Your task to perform on an android device: manage bookmarks in the chrome app Image 0: 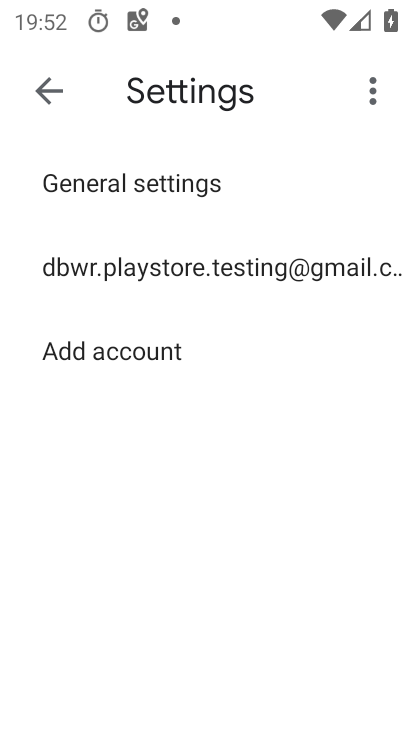
Step 0: press home button
Your task to perform on an android device: manage bookmarks in the chrome app Image 1: 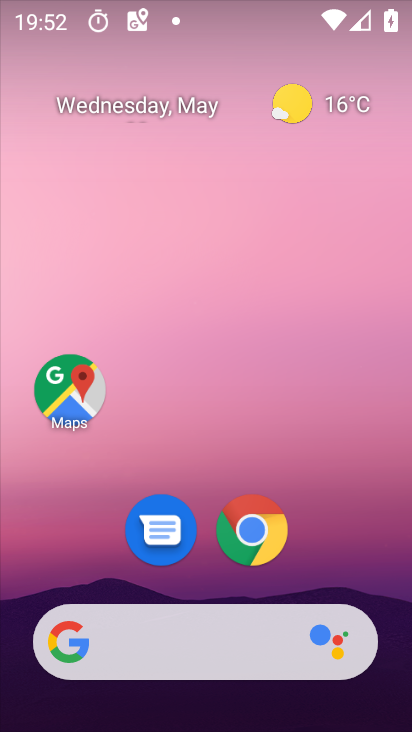
Step 1: click (243, 521)
Your task to perform on an android device: manage bookmarks in the chrome app Image 2: 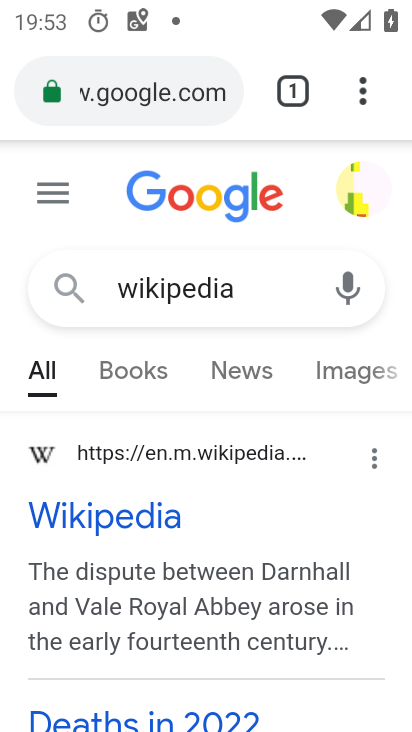
Step 2: click (361, 78)
Your task to perform on an android device: manage bookmarks in the chrome app Image 3: 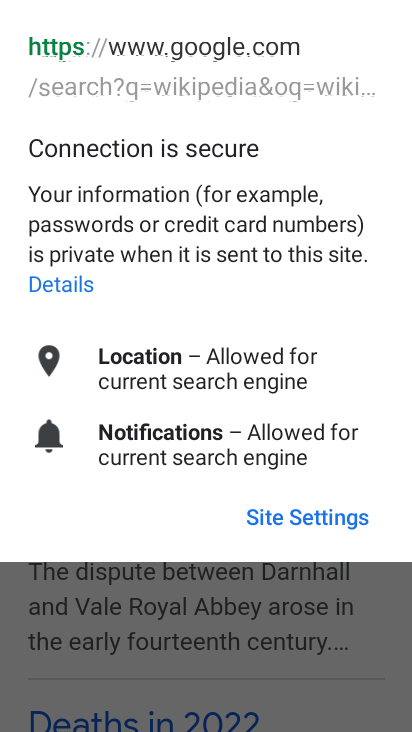
Step 3: click (18, 615)
Your task to perform on an android device: manage bookmarks in the chrome app Image 4: 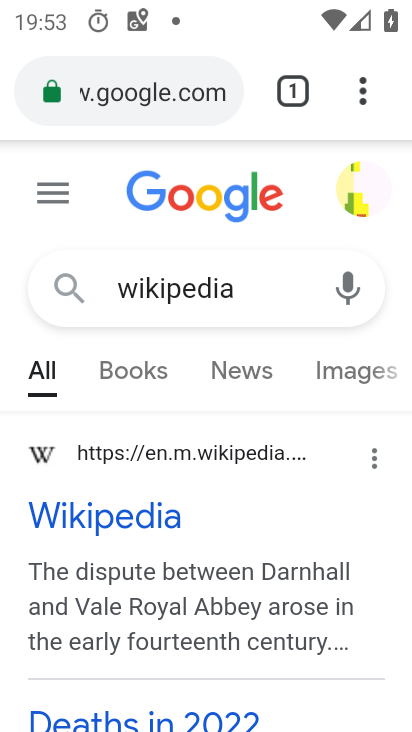
Step 4: click (366, 100)
Your task to perform on an android device: manage bookmarks in the chrome app Image 5: 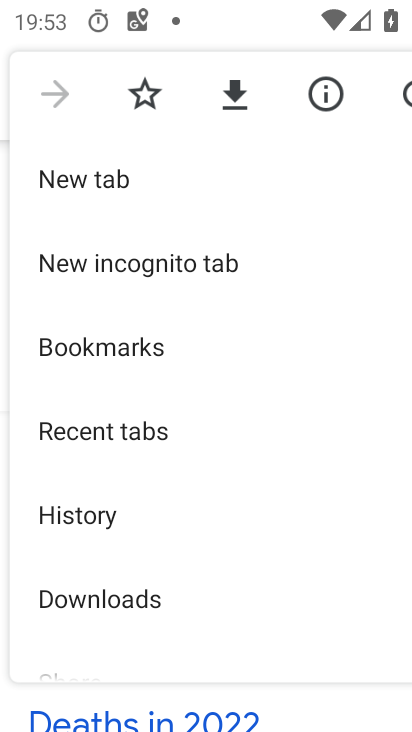
Step 5: click (121, 332)
Your task to perform on an android device: manage bookmarks in the chrome app Image 6: 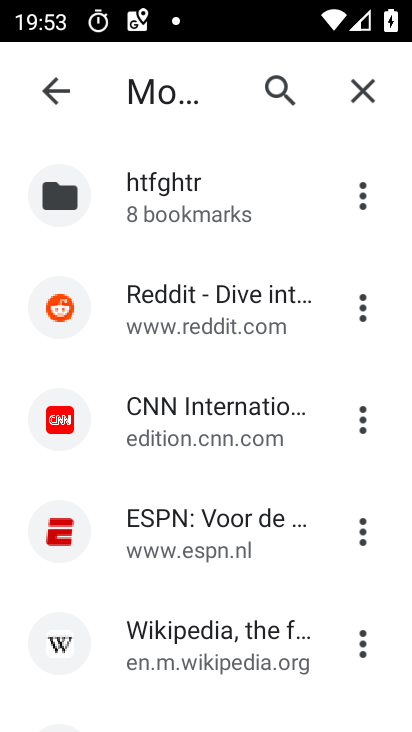
Step 6: task complete